Your task to perform on an android device: toggle show notifications on the lock screen Image 0: 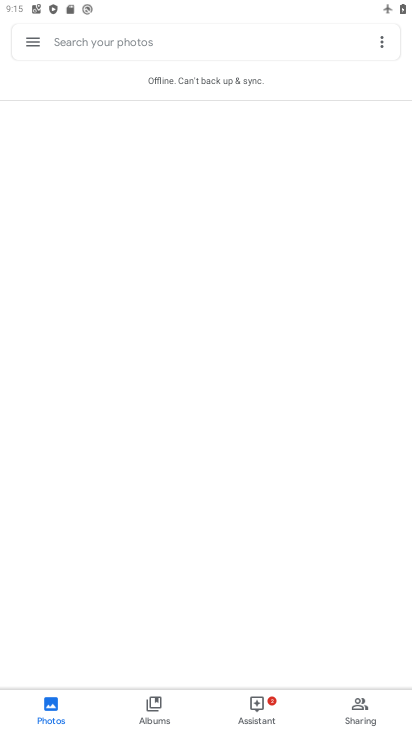
Step 0: press home button
Your task to perform on an android device: toggle show notifications on the lock screen Image 1: 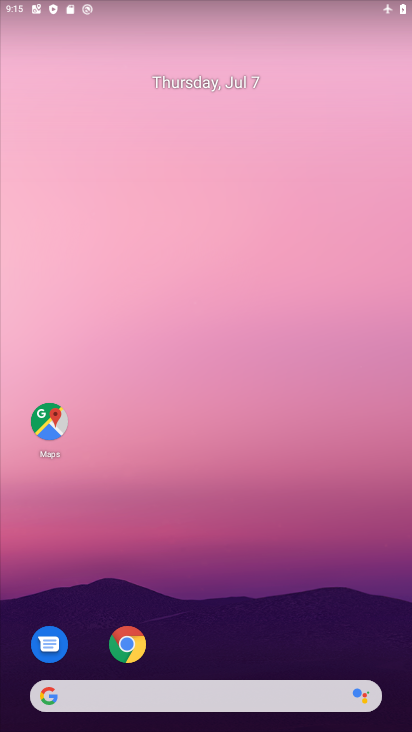
Step 1: drag from (265, 608) to (253, 0)
Your task to perform on an android device: toggle show notifications on the lock screen Image 2: 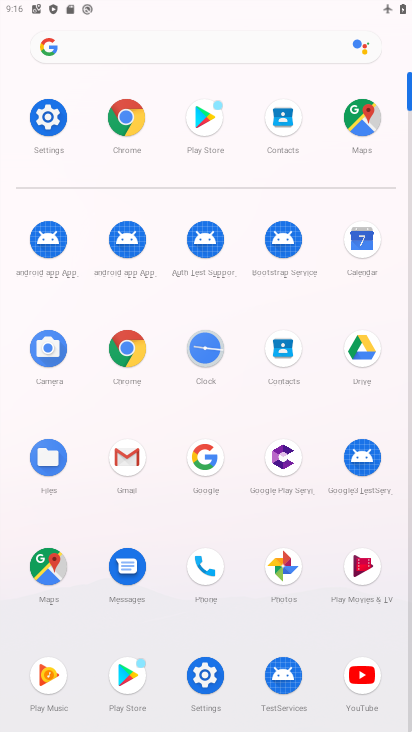
Step 2: click (54, 123)
Your task to perform on an android device: toggle show notifications on the lock screen Image 3: 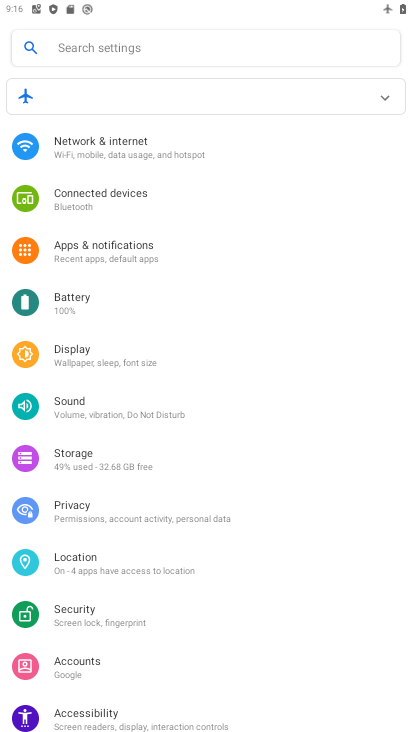
Step 3: click (107, 246)
Your task to perform on an android device: toggle show notifications on the lock screen Image 4: 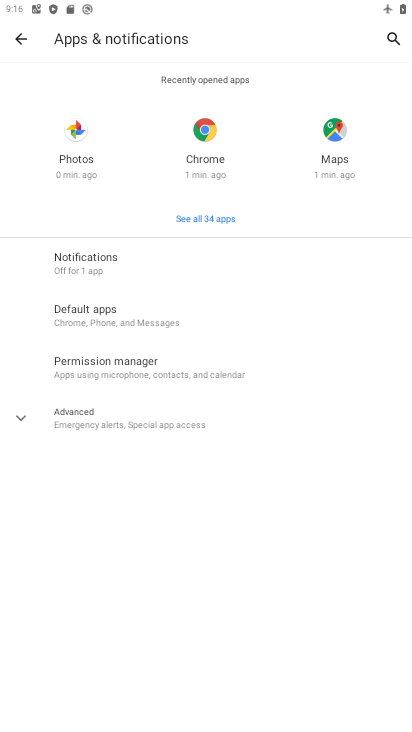
Step 4: click (96, 263)
Your task to perform on an android device: toggle show notifications on the lock screen Image 5: 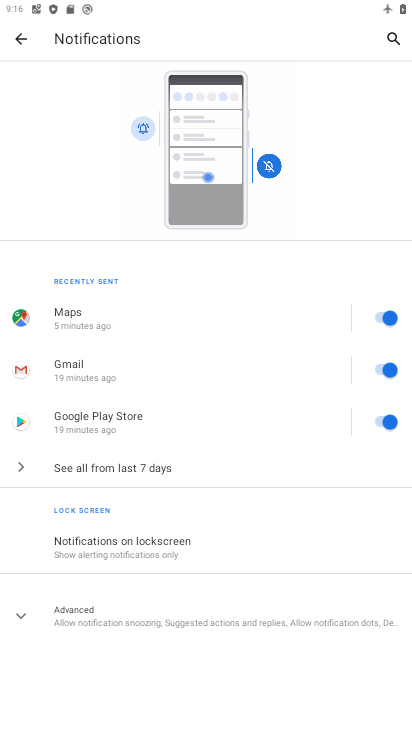
Step 5: click (195, 547)
Your task to perform on an android device: toggle show notifications on the lock screen Image 6: 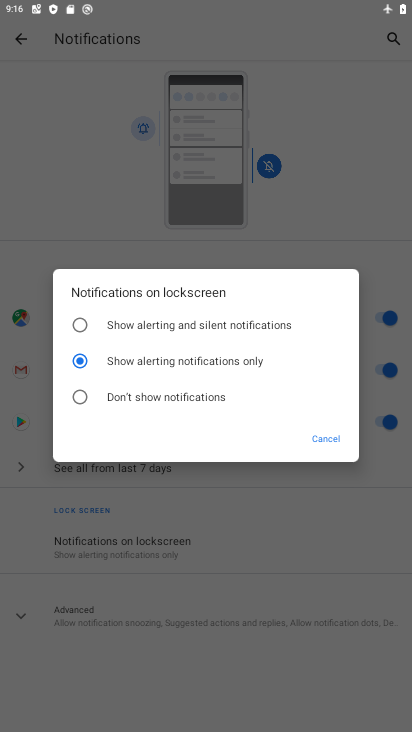
Step 6: click (190, 326)
Your task to perform on an android device: toggle show notifications on the lock screen Image 7: 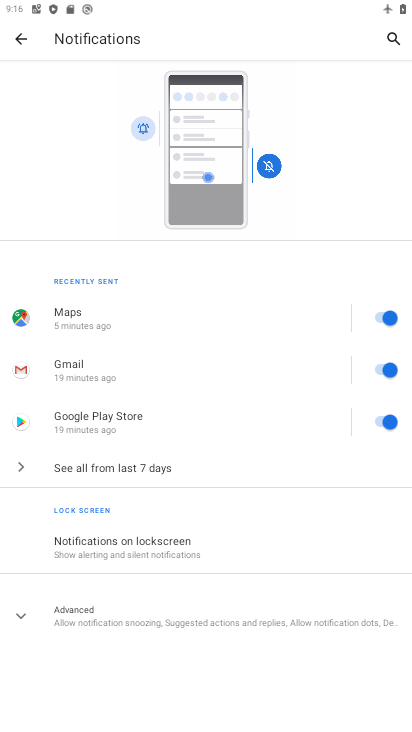
Step 7: task complete